Your task to perform on an android device: read, delete, or share a saved page in the chrome app Image 0: 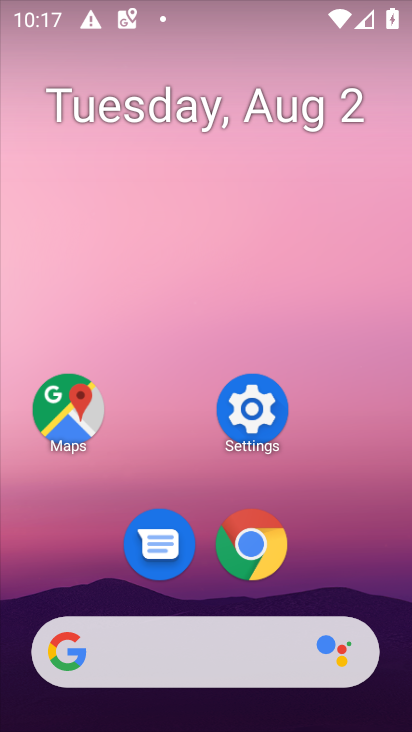
Step 0: press home button
Your task to perform on an android device: read, delete, or share a saved page in the chrome app Image 1: 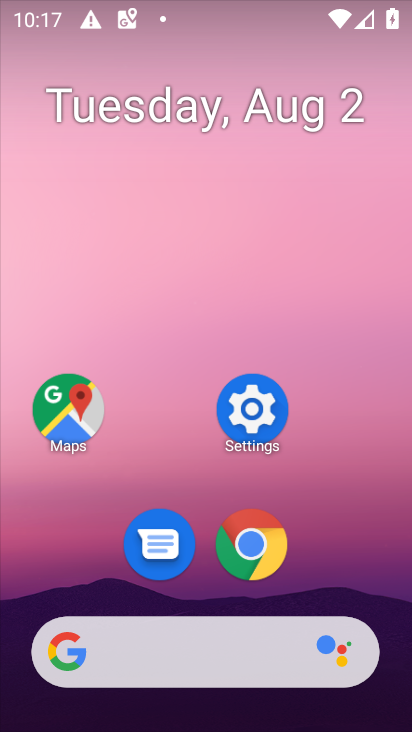
Step 1: click (259, 549)
Your task to perform on an android device: read, delete, or share a saved page in the chrome app Image 2: 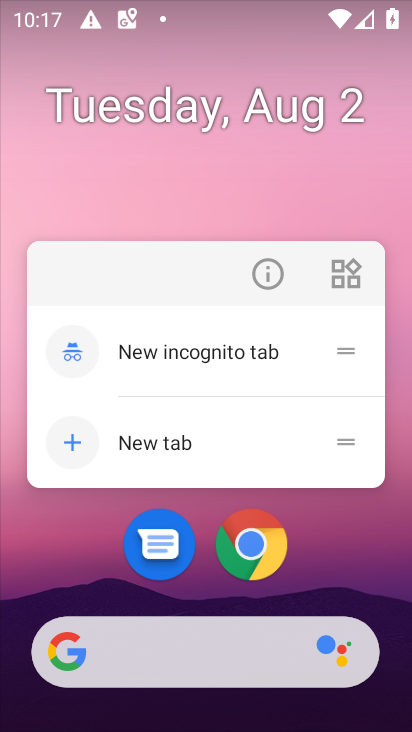
Step 2: click (254, 551)
Your task to perform on an android device: read, delete, or share a saved page in the chrome app Image 3: 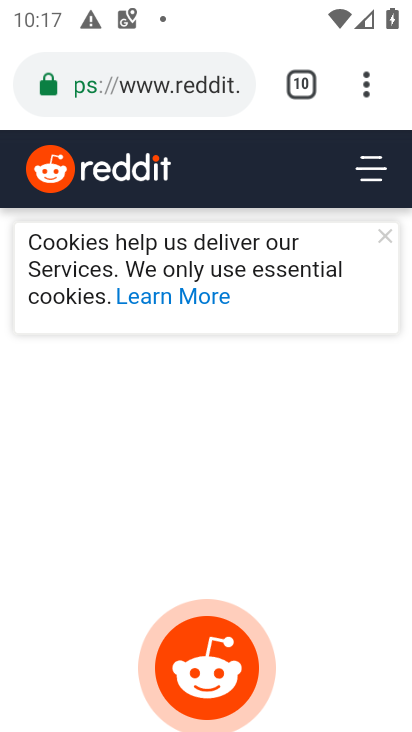
Step 3: drag from (366, 85) to (114, 538)
Your task to perform on an android device: read, delete, or share a saved page in the chrome app Image 4: 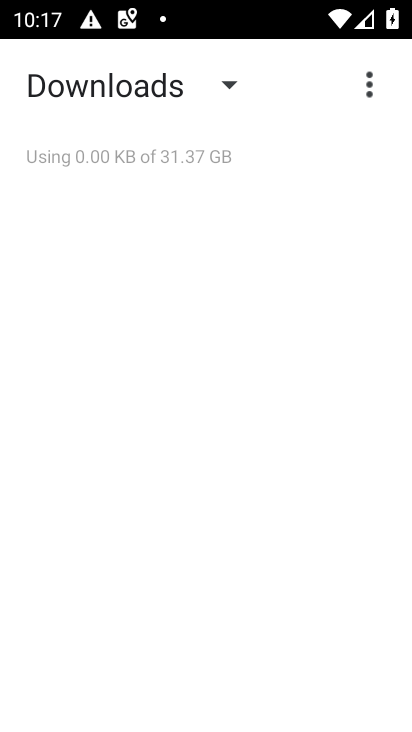
Step 4: click (227, 78)
Your task to perform on an android device: read, delete, or share a saved page in the chrome app Image 5: 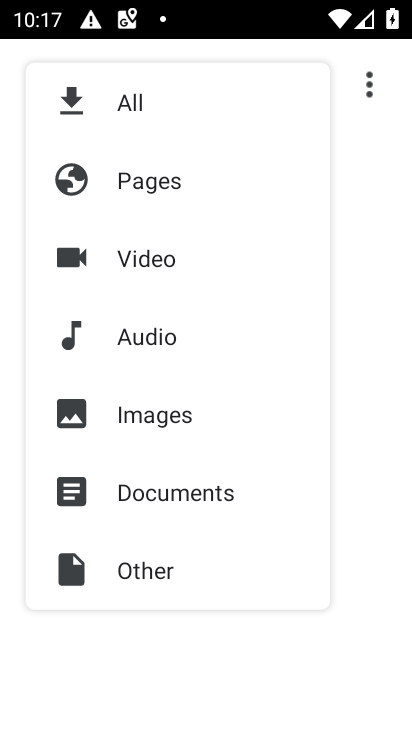
Step 5: click (166, 176)
Your task to perform on an android device: read, delete, or share a saved page in the chrome app Image 6: 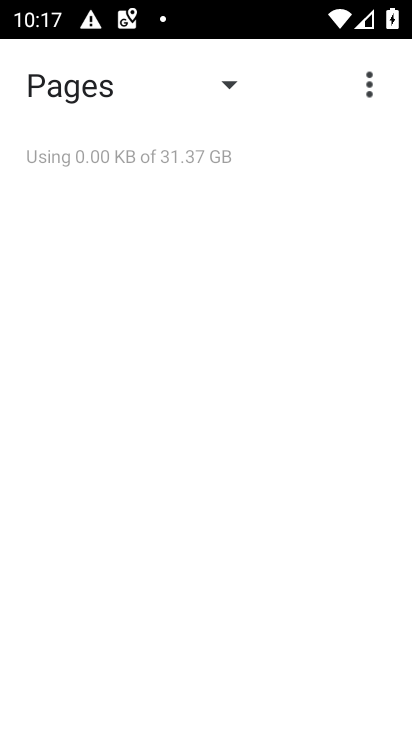
Step 6: task complete